Your task to perform on an android device: turn on wifi Image 0: 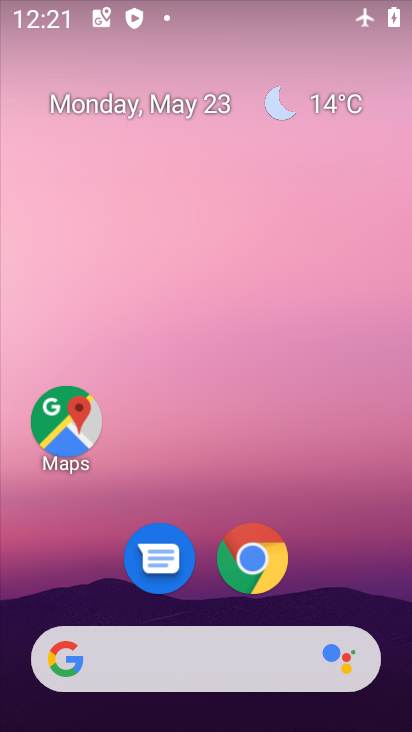
Step 0: drag from (344, 568) to (290, 36)
Your task to perform on an android device: turn on wifi Image 1: 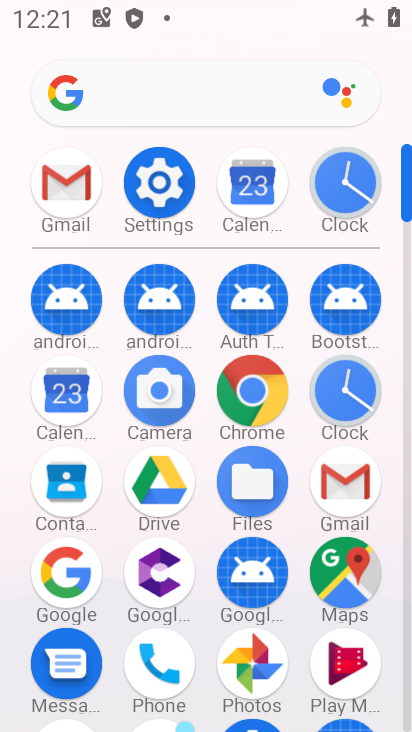
Step 1: click (163, 192)
Your task to perform on an android device: turn on wifi Image 2: 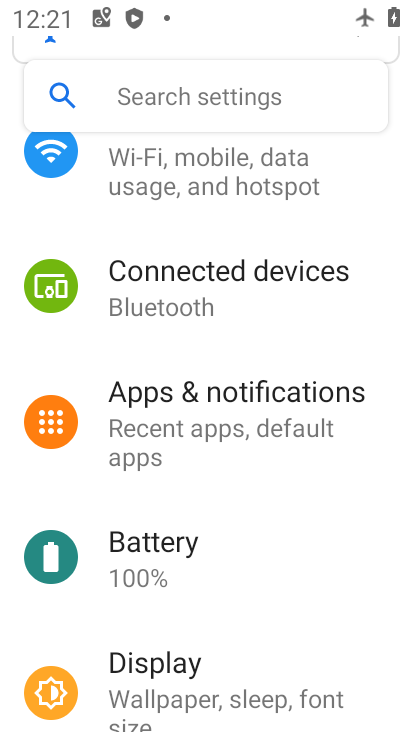
Step 2: click (190, 176)
Your task to perform on an android device: turn on wifi Image 3: 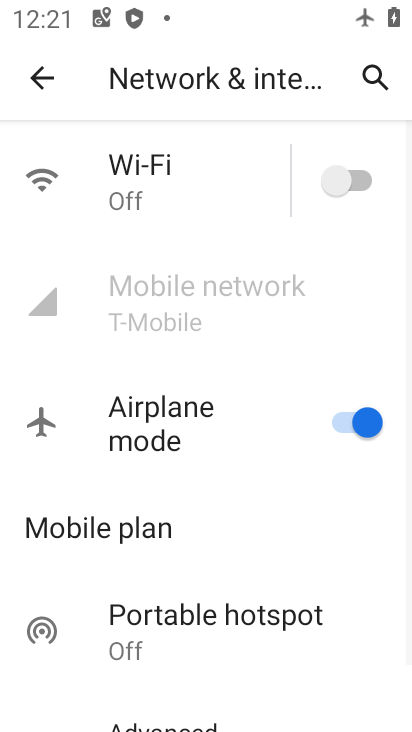
Step 3: click (343, 181)
Your task to perform on an android device: turn on wifi Image 4: 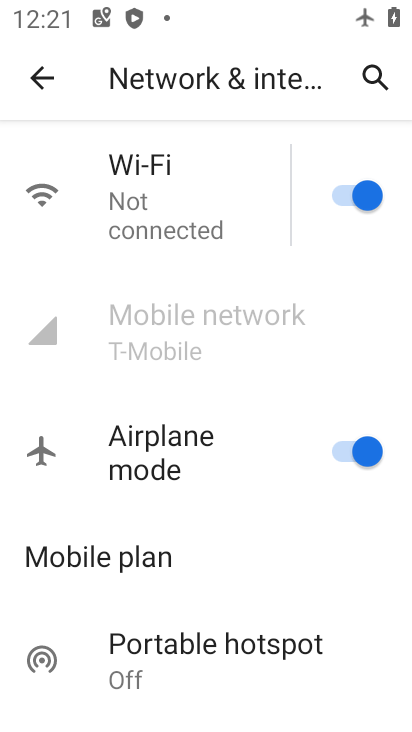
Step 4: task complete